Your task to perform on an android device: Show the shopping cart on amazon. Add "razer blade" to the cart on amazon, then select checkout. Image 0: 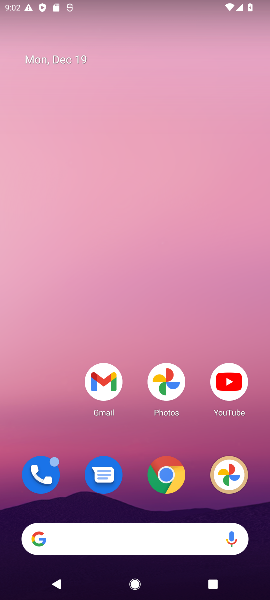
Step 0: click (161, 480)
Your task to perform on an android device: Show the shopping cart on amazon. Add "razer blade" to the cart on amazon, then select checkout. Image 1: 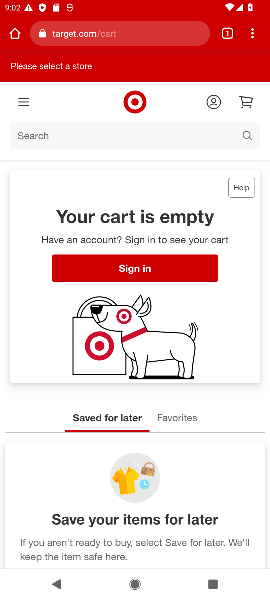
Step 1: click (124, 30)
Your task to perform on an android device: Show the shopping cart on amazon. Add "razer blade" to the cart on amazon, then select checkout. Image 2: 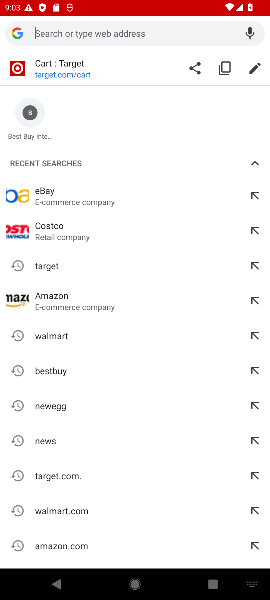
Step 2: click (86, 305)
Your task to perform on an android device: Show the shopping cart on amazon. Add "razer blade" to the cart on amazon, then select checkout. Image 3: 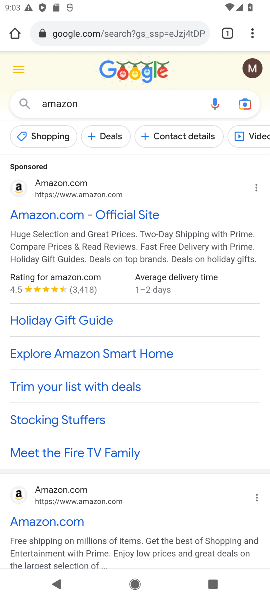
Step 3: click (109, 212)
Your task to perform on an android device: Show the shopping cart on amazon. Add "razer blade" to the cart on amazon, then select checkout. Image 4: 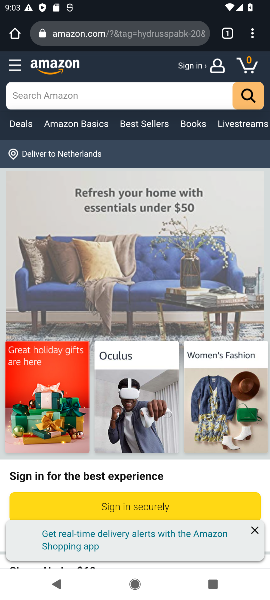
Step 4: click (133, 91)
Your task to perform on an android device: Show the shopping cart on amazon. Add "razer blade" to the cart on amazon, then select checkout. Image 5: 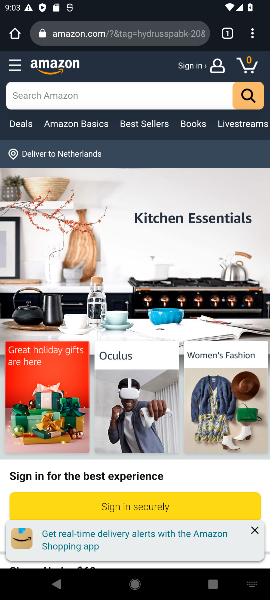
Step 5: type "razer blade"
Your task to perform on an android device: Show the shopping cart on amazon. Add "razer blade" to the cart on amazon, then select checkout. Image 6: 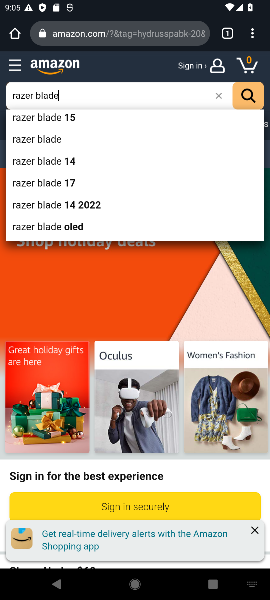
Step 6: click (56, 116)
Your task to perform on an android device: Show the shopping cart on amazon. Add "razer blade" to the cart on amazon, then select checkout. Image 7: 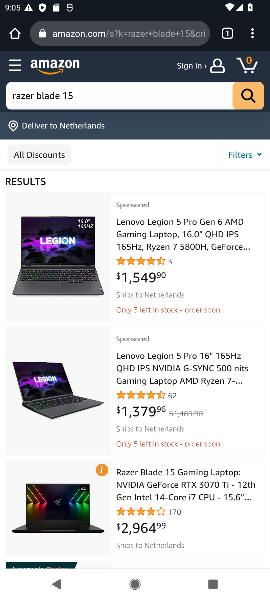
Step 7: click (191, 242)
Your task to perform on an android device: Show the shopping cart on amazon. Add "razer blade" to the cart on amazon, then select checkout. Image 8: 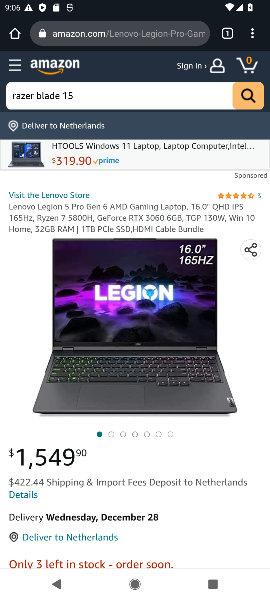
Step 8: drag from (202, 513) to (186, 142)
Your task to perform on an android device: Show the shopping cart on amazon. Add "razer blade" to the cart on amazon, then select checkout. Image 9: 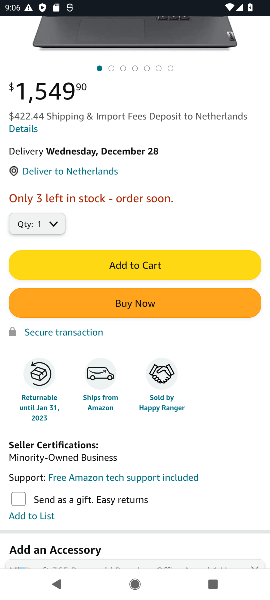
Step 9: click (131, 264)
Your task to perform on an android device: Show the shopping cart on amazon. Add "razer blade" to the cart on amazon, then select checkout. Image 10: 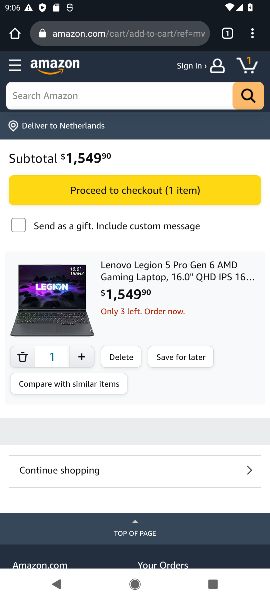
Step 10: click (142, 189)
Your task to perform on an android device: Show the shopping cart on amazon. Add "razer blade" to the cart on amazon, then select checkout. Image 11: 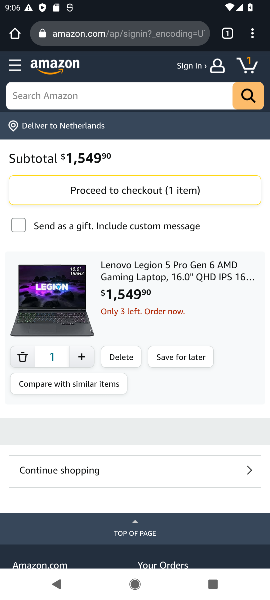
Step 11: task complete